Your task to perform on an android device: change the clock display to digital Image 0: 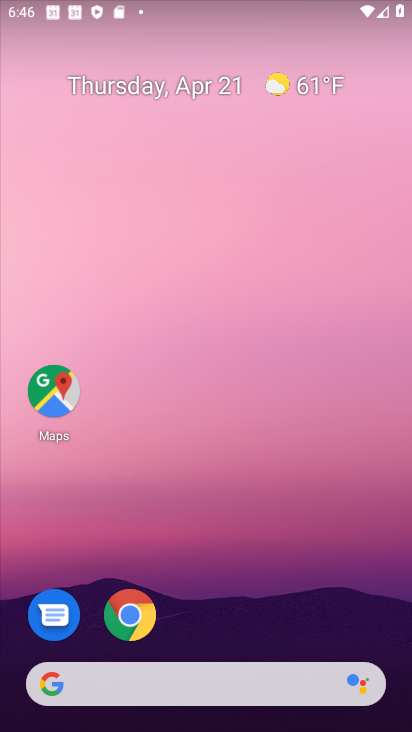
Step 0: drag from (194, 618) to (198, 163)
Your task to perform on an android device: change the clock display to digital Image 1: 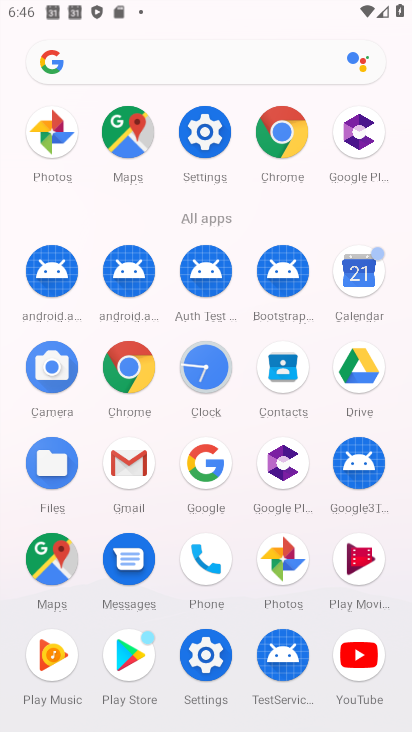
Step 1: click (203, 364)
Your task to perform on an android device: change the clock display to digital Image 2: 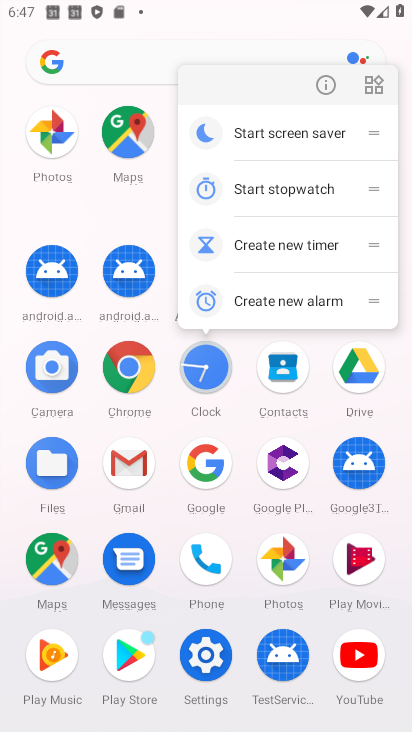
Step 2: click (328, 97)
Your task to perform on an android device: change the clock display to digital Image 3: 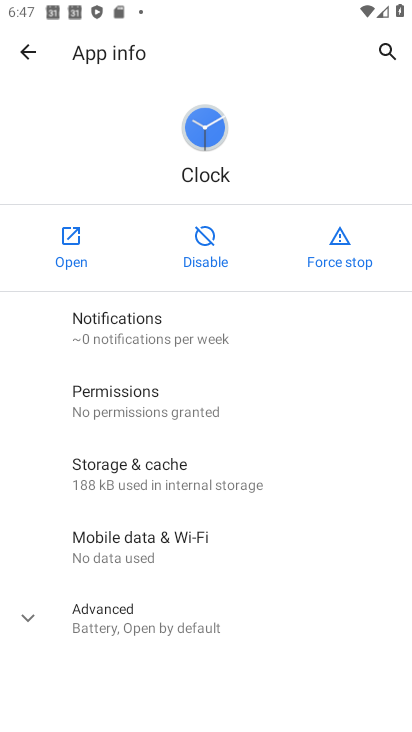
Step 3: click (74, 229)
Your task to perform on an android device: change the clock display to digital Image 4: 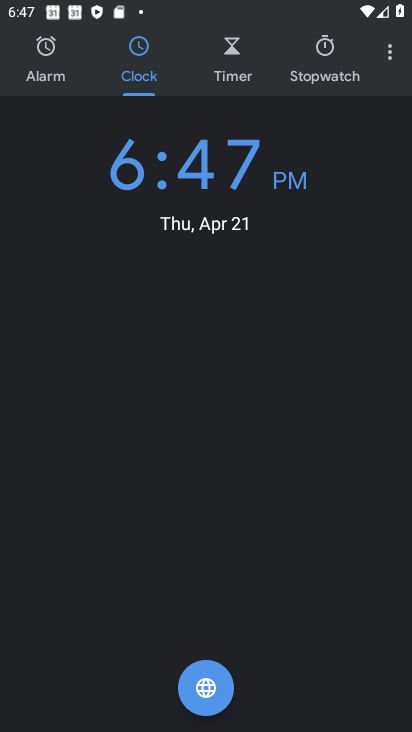
Step 4: click (324, 70)
Your task to perform on an android device: change the clock display to digital Image 5: 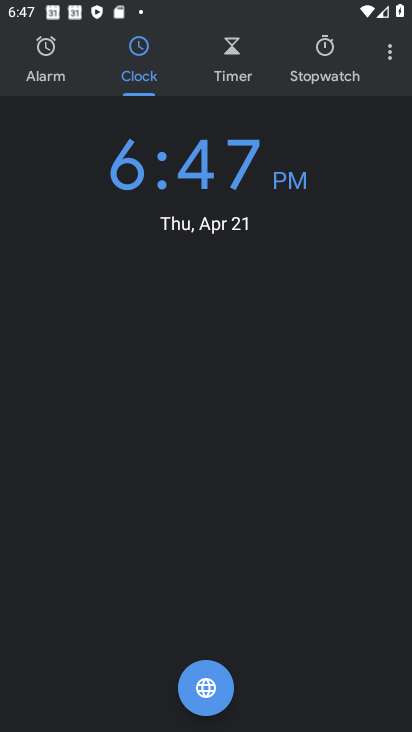
Step 5: click (400, 52)
Your task to perform on an android device: change the clock display to digital Image 6: 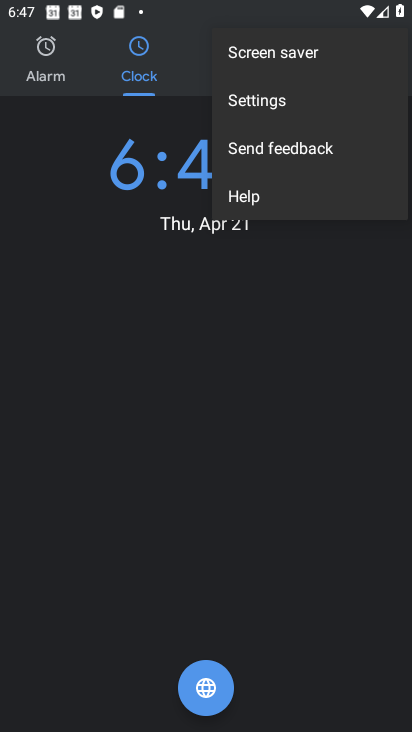
Step 6: click (293, 104)
Your task to perform on an android device: change the clock display to digital Image 7: 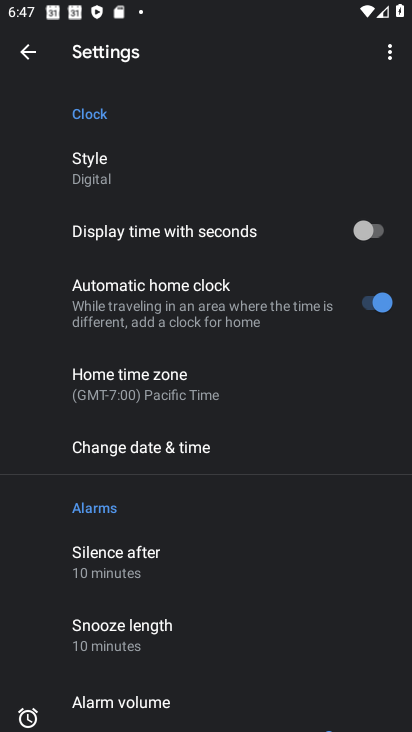
Step 7: click (164, 181)
Your task to perform on an android device: change the clock display to digital Image 8: 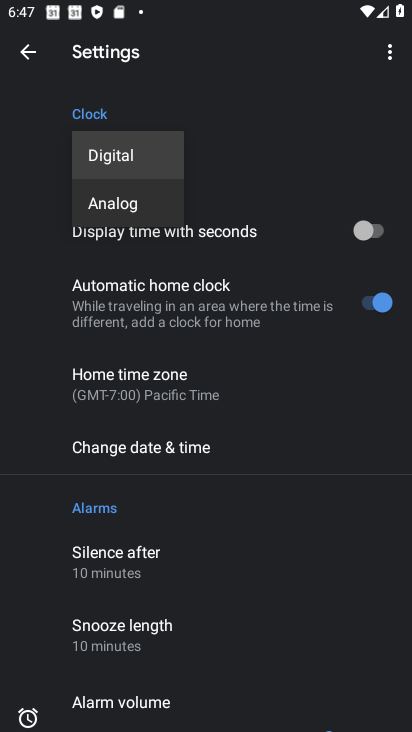
Step 8: click (225, 160)
Your task to perform on an android device: change the clock display to digital Image 9: 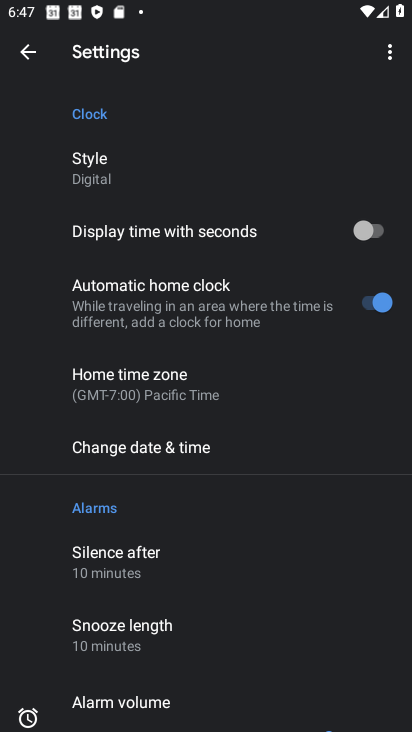
Step 9: click (186, 163)
Your task to perform on an android device: change the clock display to digital Image 10: 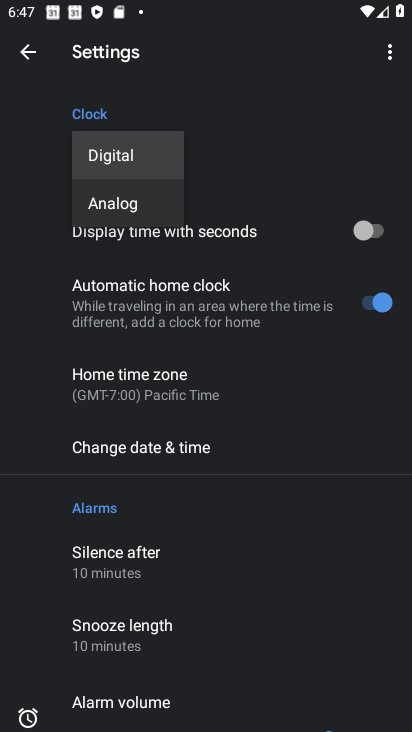
Step 10: click (170, 163)
Your task to perform on an android device: change the clock display to digital Image 11: 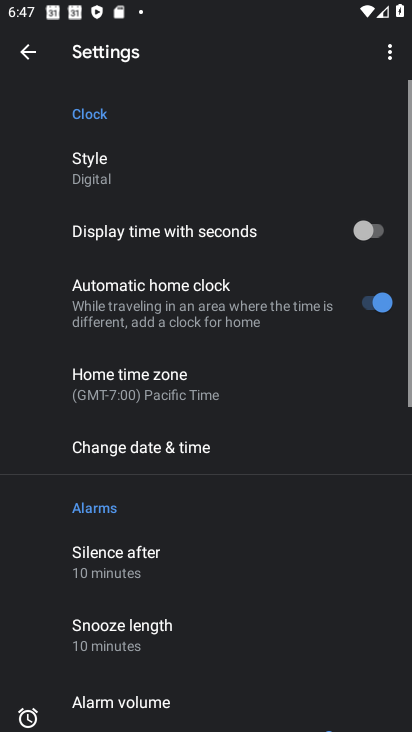
Step 11: task complete